Your task to perform on an android device: Go to Reddit.com Image 0: 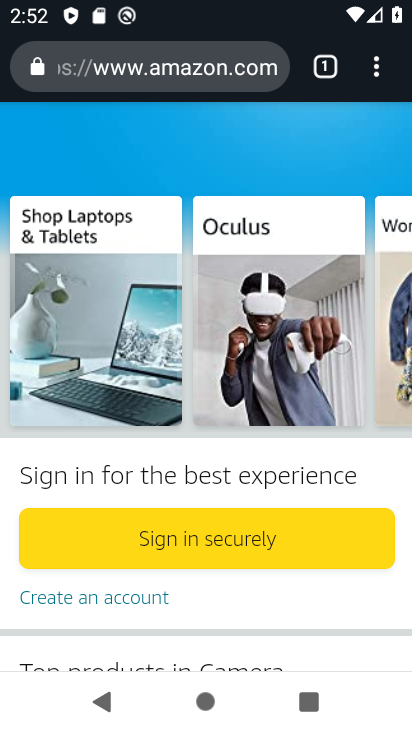
Step 0: press home button
Your task to perform on an android device: Go to Reddit.com Image 1: 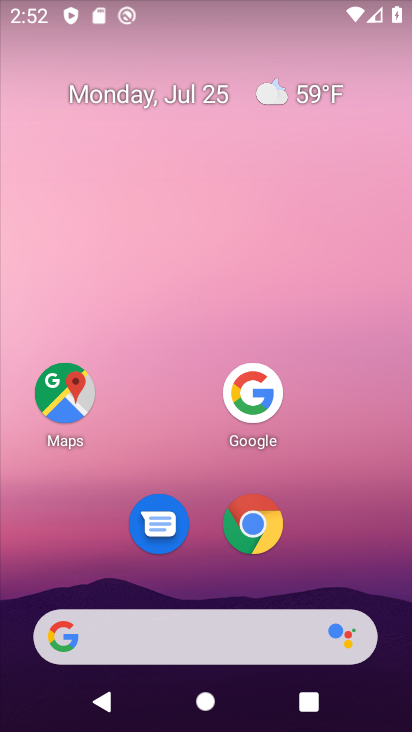
Step 1: click (265, 526)
Your task to perform on an android device: Go to Reddit.com Image 2: 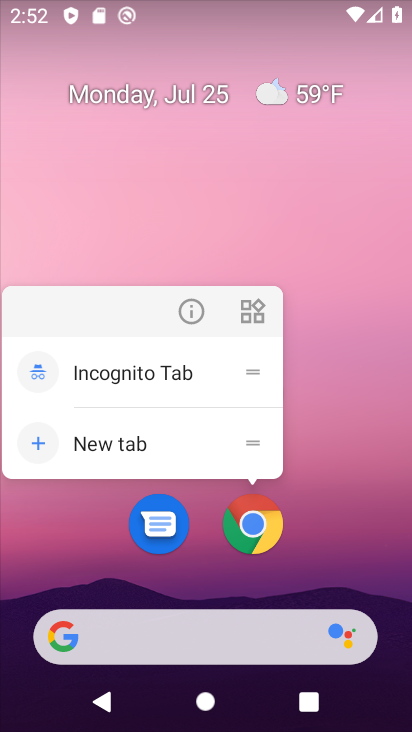
Step 2: click (253, 526)
Your task to perform on an android device: Go to Reddit.com Image 3: 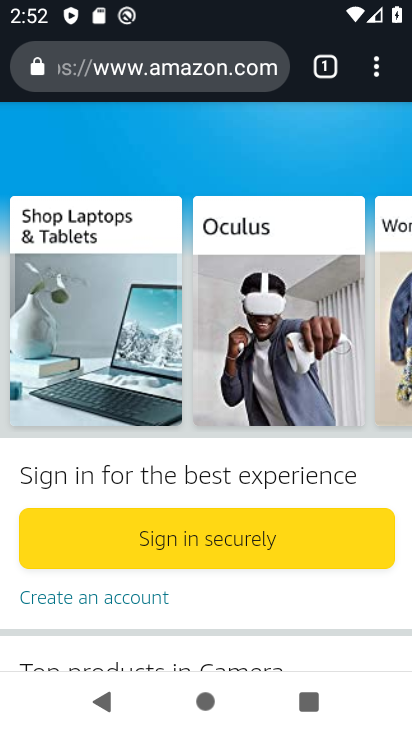
Step 3: drag from (374, 69) to (177, 127)
Your task to perform on an android device: Go to Reddit.com Image 4: 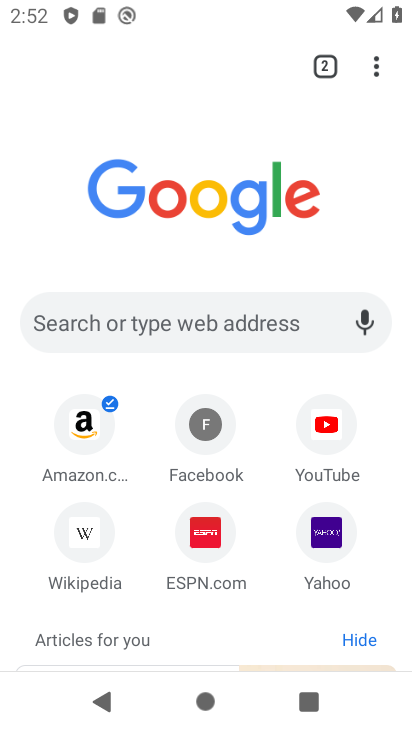
Step 4: click (182, 335)
Your task to perform on an android device: Go to Reddit.com Image 5: 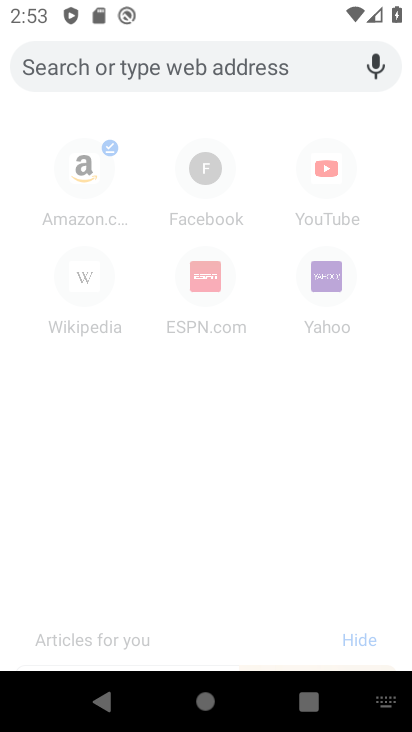
Step 5: type "reddit.com"
Your task to perform on an android device: Go to Reddit.com Image 6: 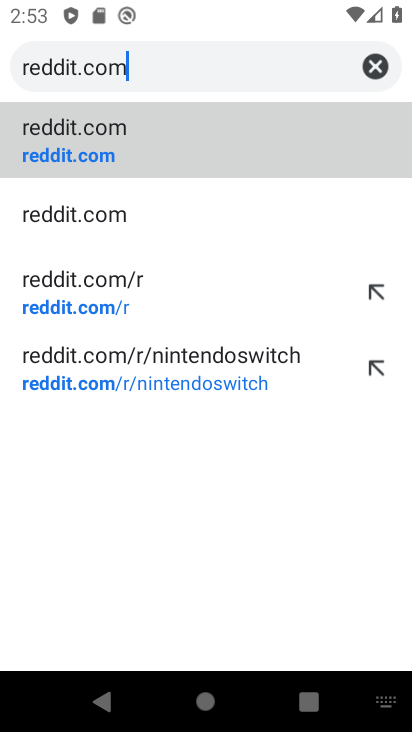
Step 6: click (110, 153)
Your task to perform on an android device: Go to Reddit.com Image 7: 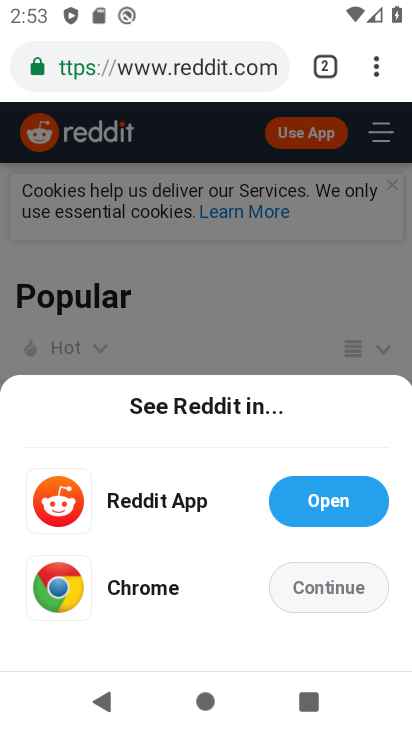
Step 7: task complete